Your task to perform on an android device: What's on my calendar tomorrow? Image 0: 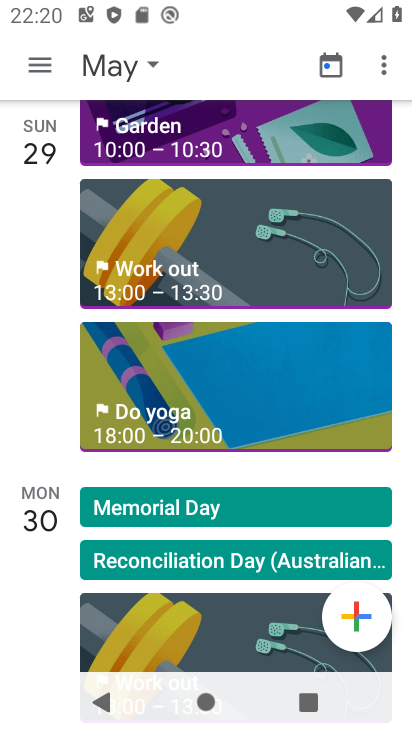
Step 0: press home button
Your task to perform on an android device: What's on my calendar tomorrow? Image 1: 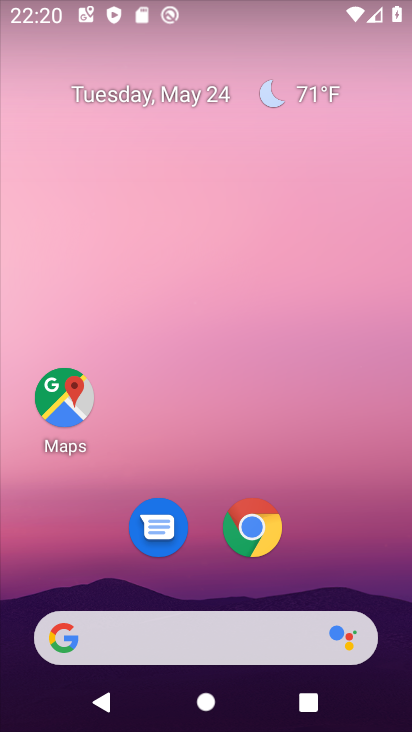
Step 1: drag from (211, 580) to (280, 76)
Your task to perform on an android device: What's on my calendar tomorrow? Image 2: 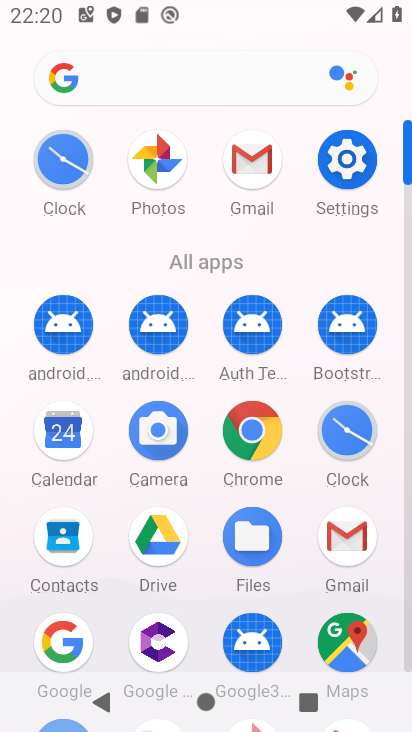
Step 2: click (64, 436)
Your task to perform on an android device: What's on my calendar tomorrow? Image 3: 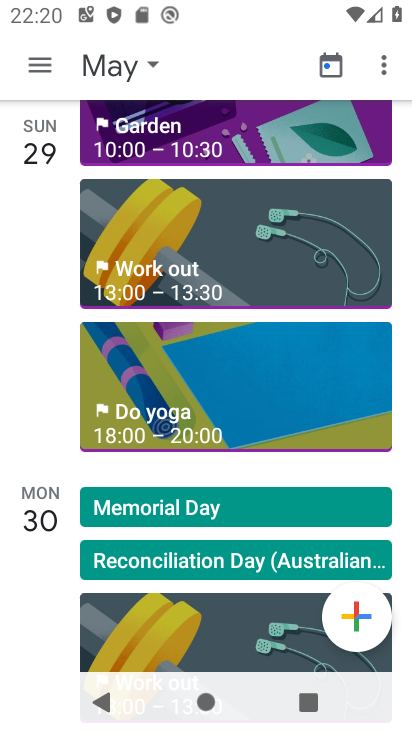
Step 3: click (142, 68)
Your task to perform on an android device: What's on my calendar tomorrow? Image 4: 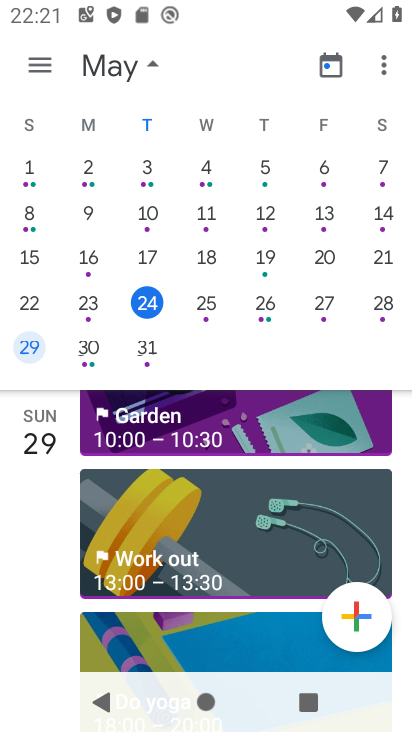
Step 4: click (202, 310)
Your task to perform on an android device: What's on my calendar tomorrow? Image 5: 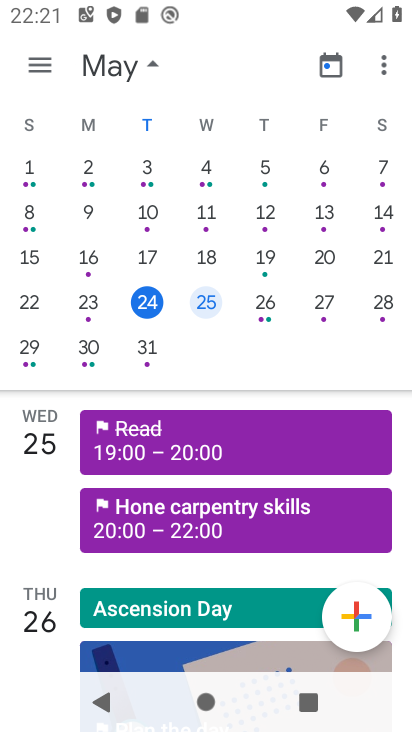
Step 5: task complete